Your task to perform on an android device: move a message to another label in the gmail app Image 0: 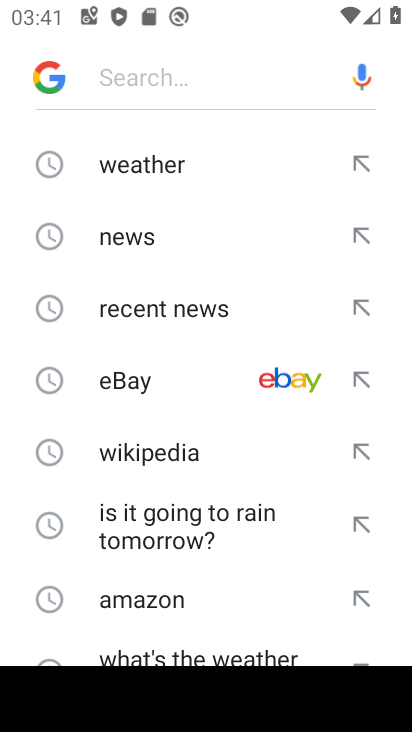
Step 0: press back button
Your task to perform on an android device: move a message to another label in the gmail app Image 1: 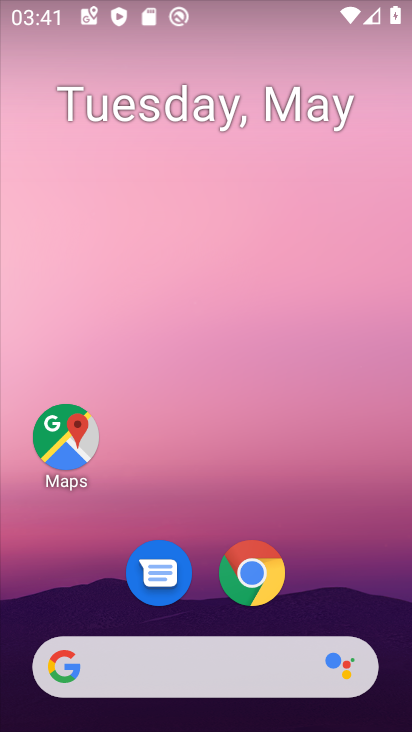
Step 1: press back button
Your task to perform on an android device: move a message to another label in the gmail app Image 2: 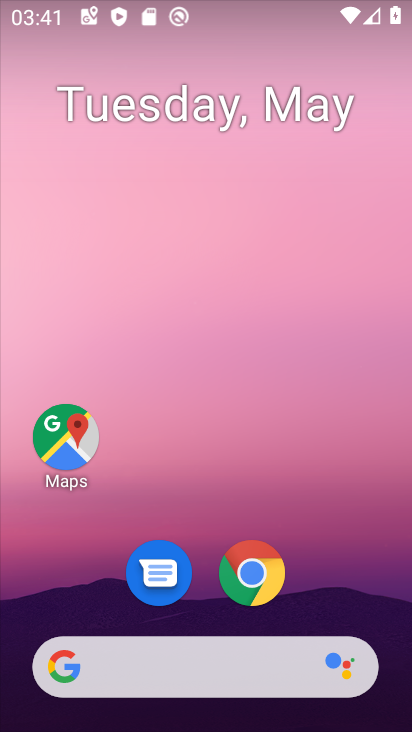
Step 2: drag from (208, 516) to (294, 95)
Your task to perform on an android device: move a message to another label in the gmail app Image 3: 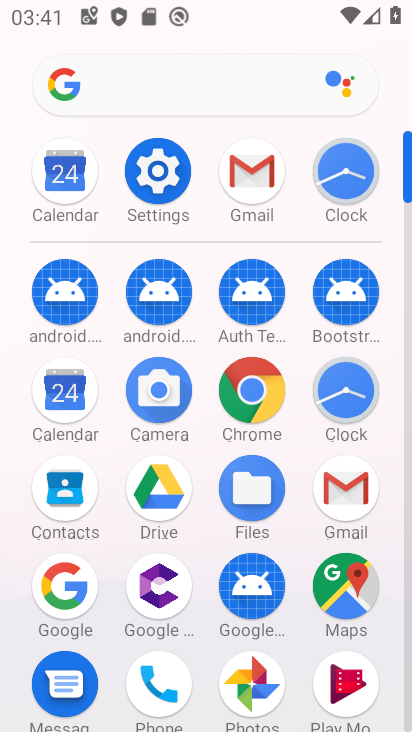
Step 3: click (333, 485)
Your task to perform on an android device: move a message to another label in the gmail app Image 4: 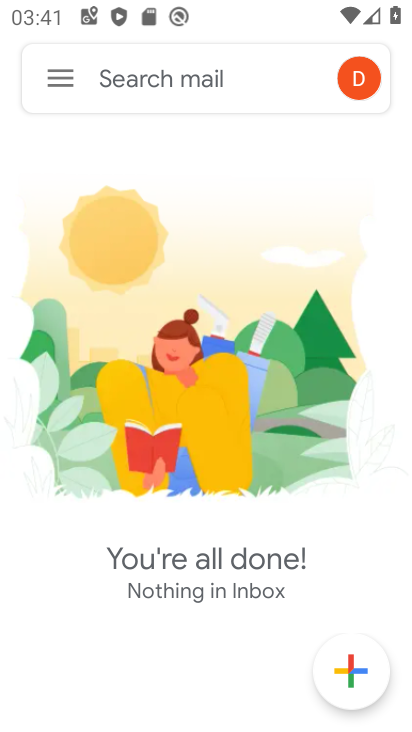
Step 4: click (58, 85)
Your task to perform on an android device: move a message to another label in the gmail app Image 5: 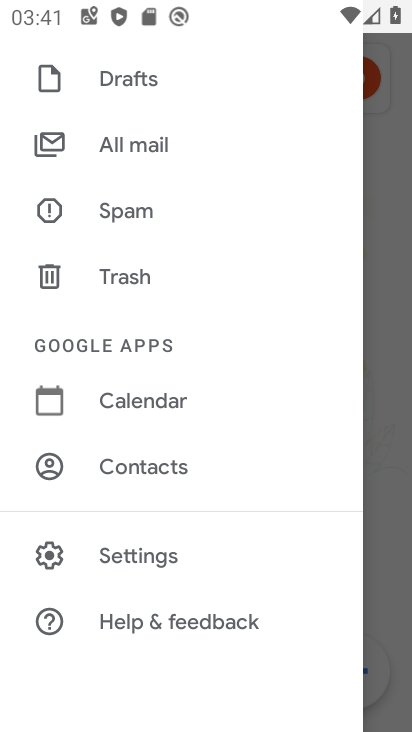
Step 5: click (133, 156)
Your task to perform on an android device: move a message to another label in the gmail app Image 6: 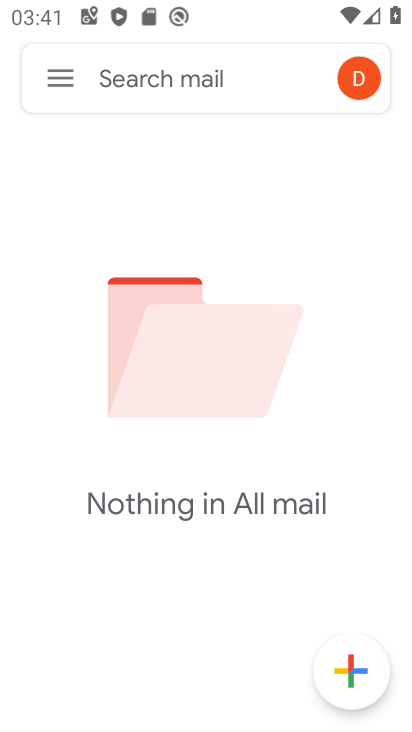
Step 6: task complete